Your task to perform on an android device: Open privacy settings Image 0: 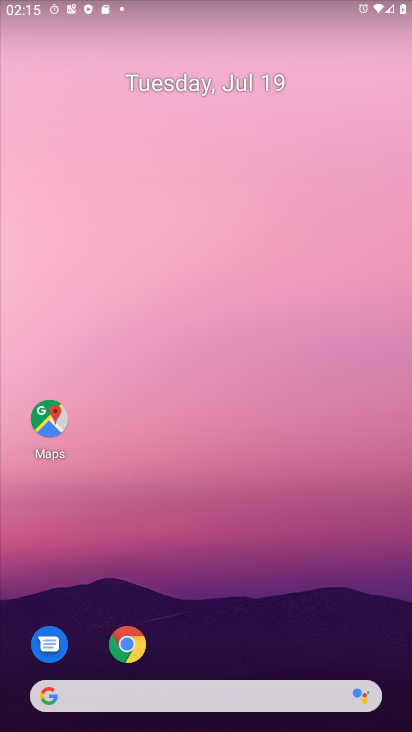
Step 0: drag from (219, 729) to (236, 78)
Your task to perform on an android device: Open privacy settings Image 1: 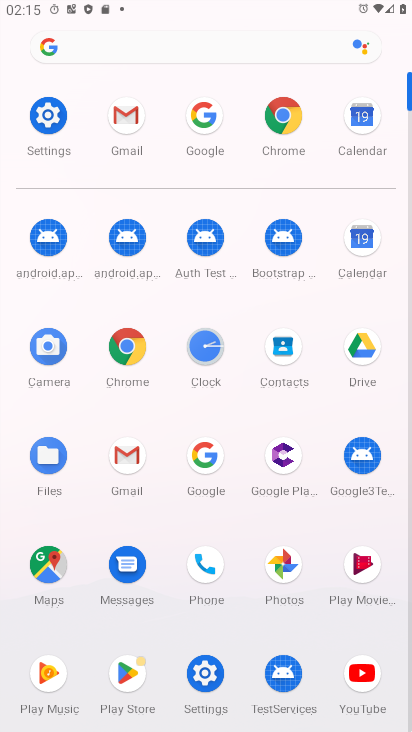
Step 1: click (45, 107)
Your task to perform on an android device: Open privacy settings Image 2: 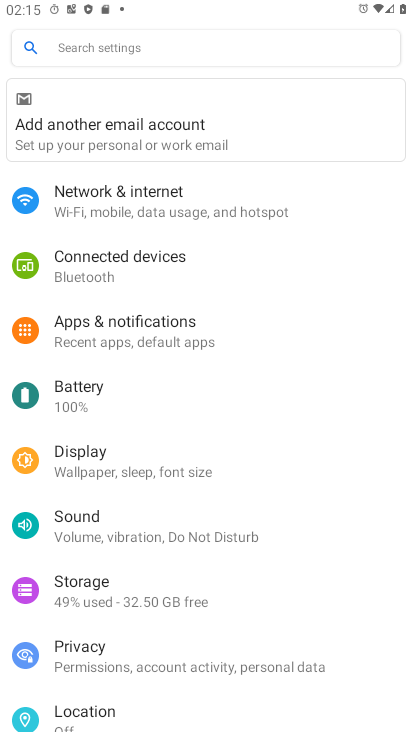
Step 2: click (100, 656)
Your task to perform on an android device: Open privacy settings Image 3: 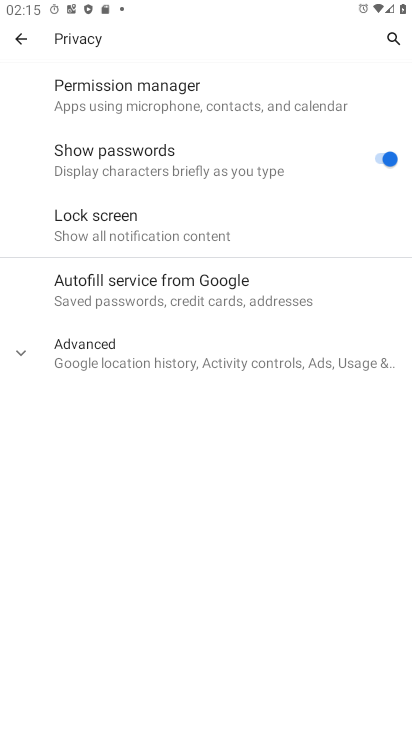
Step 3: task complete